Your task to perform on an android device: Go to notification settings Image 0: 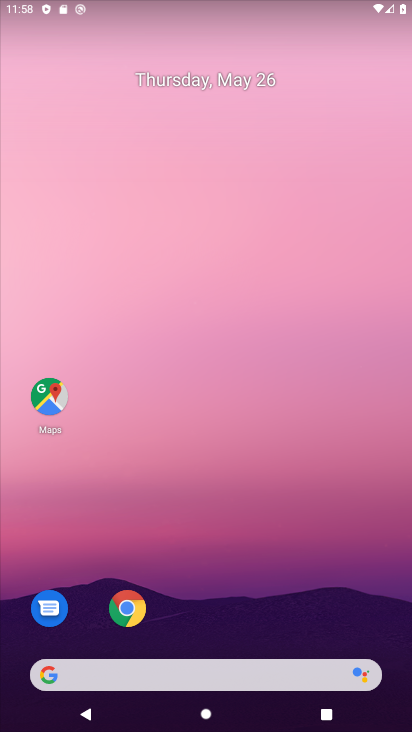
Step 0: press home button
Your task to perform on an android device: Go to notification settings Image 1: 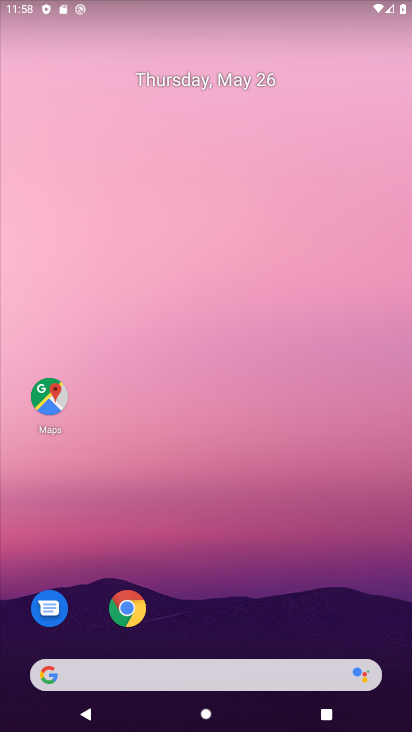
Step 1: drag from (134, 675) to (324, 69)
Your task to perform on an android device: Go to notification settings Image 2: 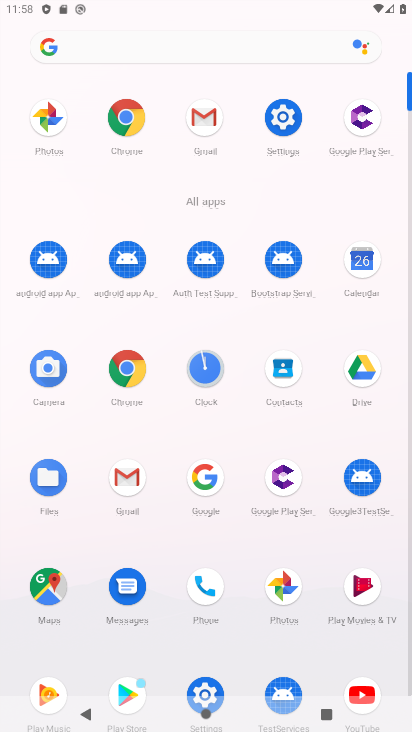
Step 2: click (288, 119)
Your task to perform on an android device: Go to notification settings Image 3: 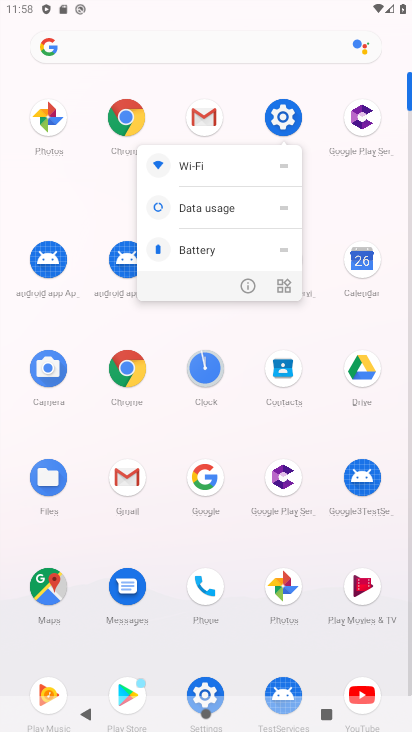
Step 3: click (285, 116)
Your task to perform on an android device: Go to notification settings Image 4: 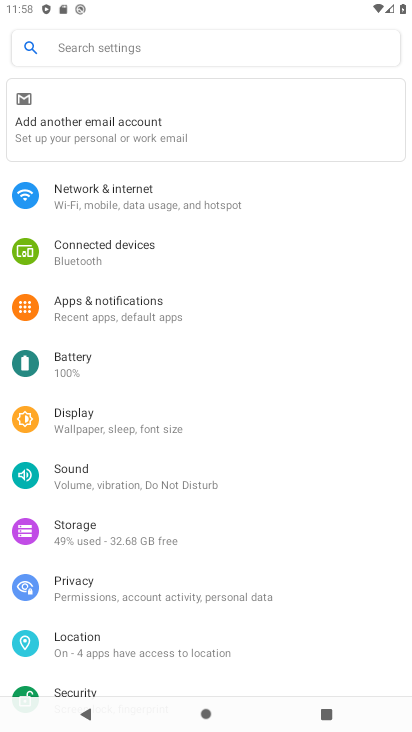
Step 4: click (121, 303)
Your task to perform on an android device: Go to notification settings Image 5: 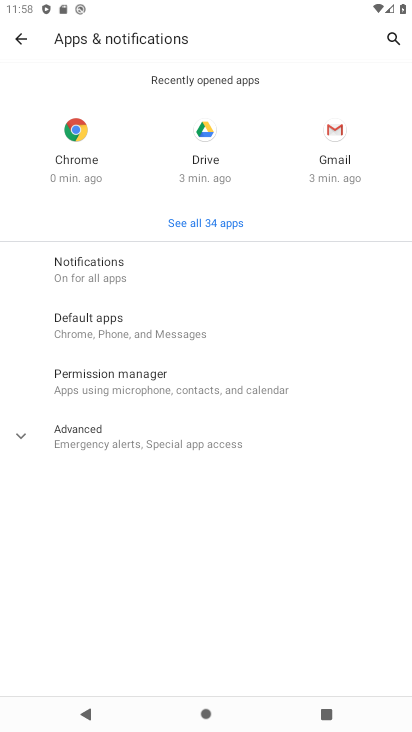
Step 5: click (97, 259)
Your task to perform on an android device: Go to notification settings Image 6: 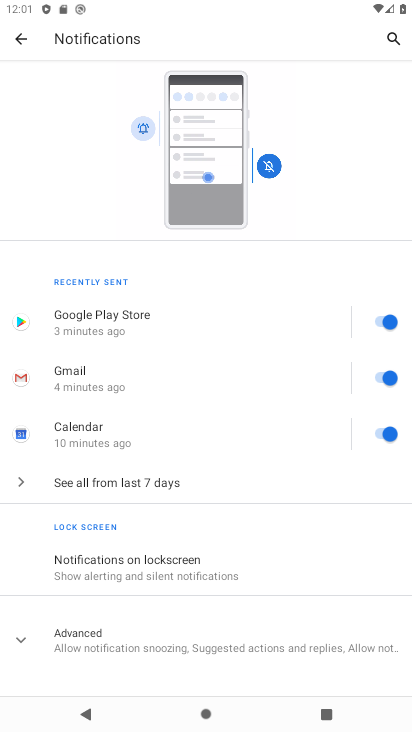
Step 6: task complete